Your task to perform on an android device: turn on javascript in the chrome app Image 0: 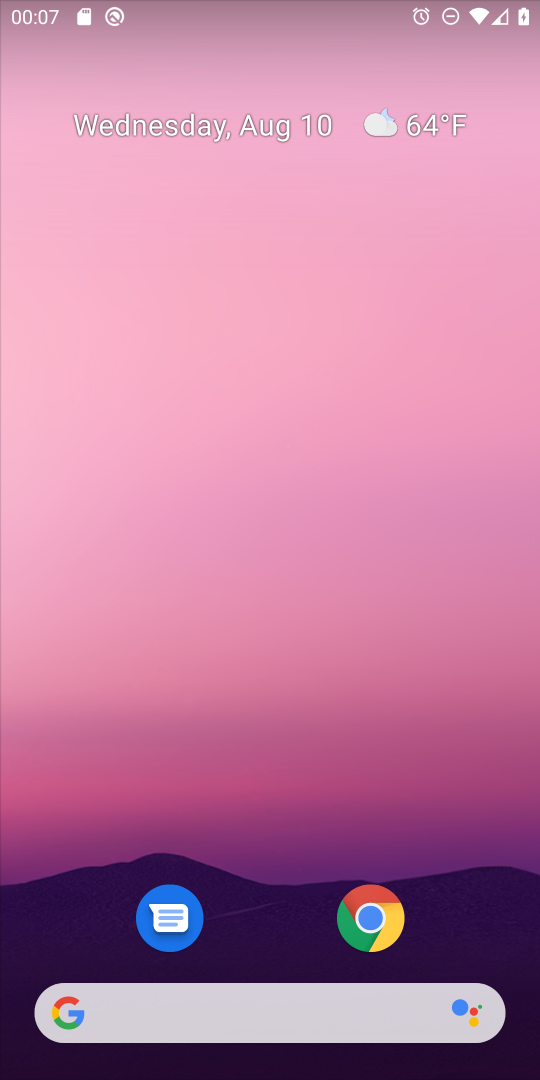
Step 0: drag from (249, 894) to (316, 181)
Your task to perform on an android device: turn on javascript in the chrome app Image 1: 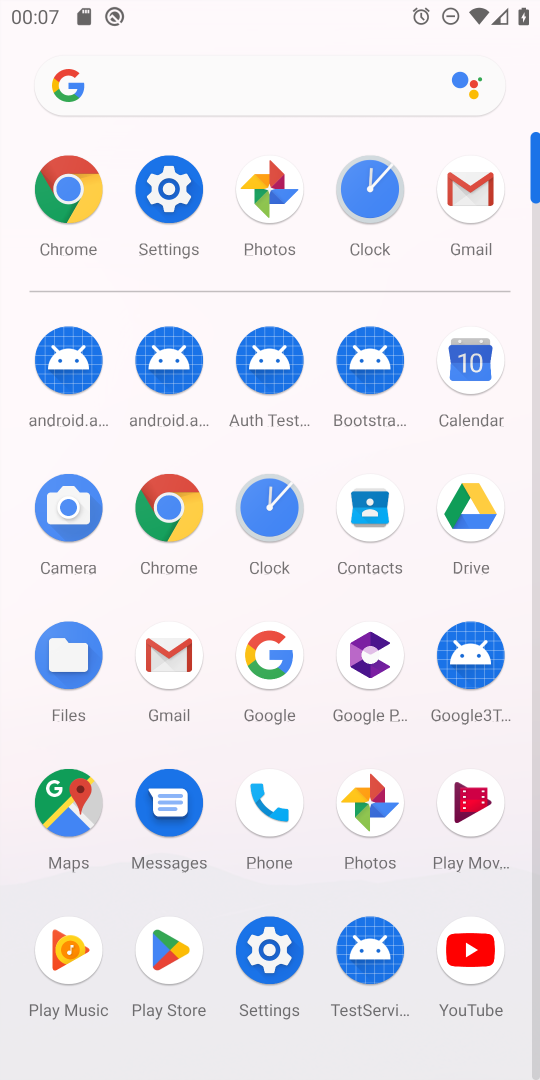
Step 1: click (164, 501)
Your task to perform on an android device: turn on javascript in the chrome app Image 2: 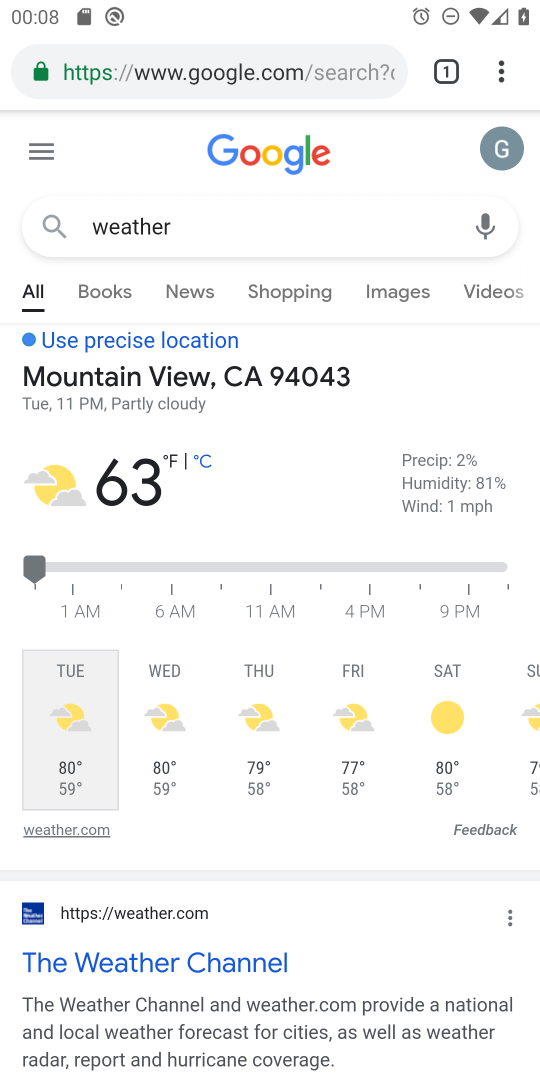
Step 2: drag from (498, 62) to (247, 873)
Your task to perform on an android device: turn on javascript in the chrome app Image 3: 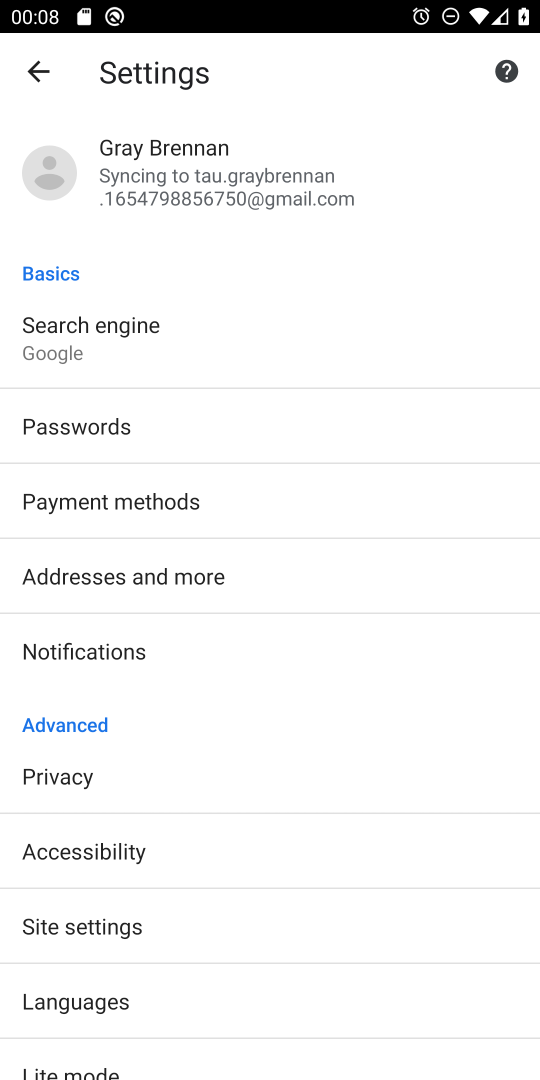
Step 3: click (74, 923)
Your task to perform on an android device: turn on javascript in the chrome app Image 4: 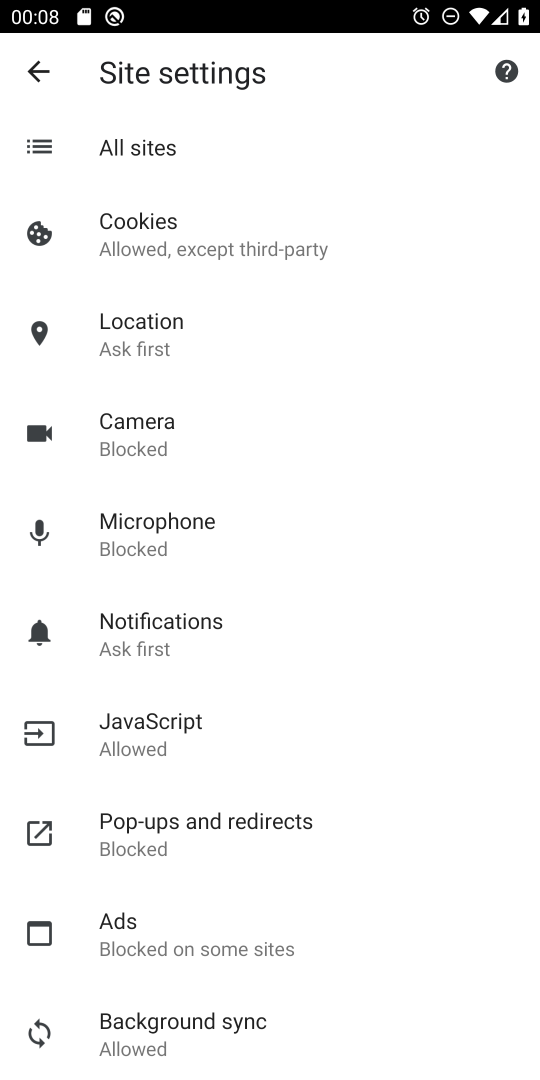
Step 4: click (156, 726)
Your task to perform on an android device: turn on javascript in the chrome app Image 5: 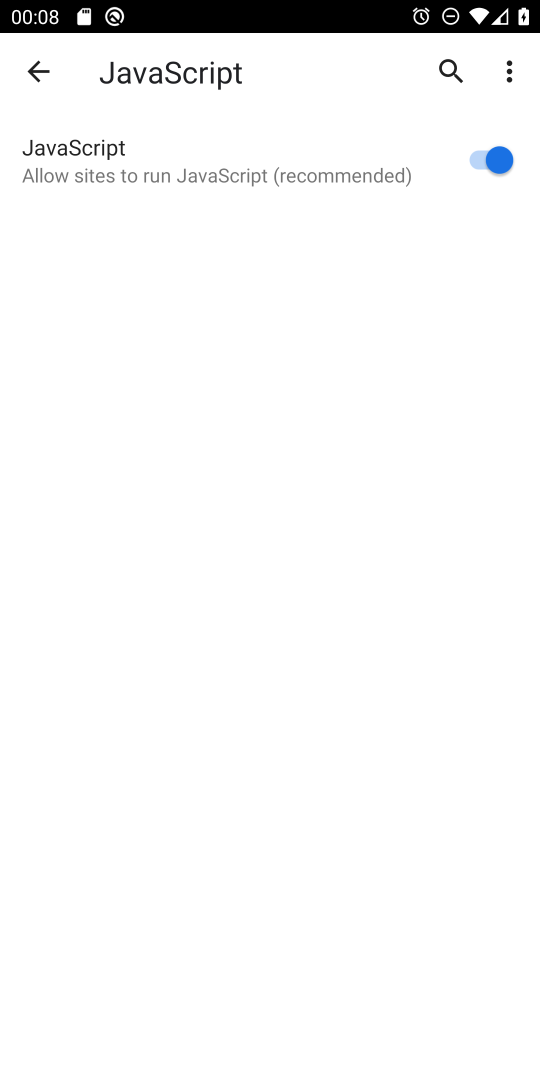
Step 5: task complete